Your task to perform on an android device: turn on javascript in the chrome app Image 0: 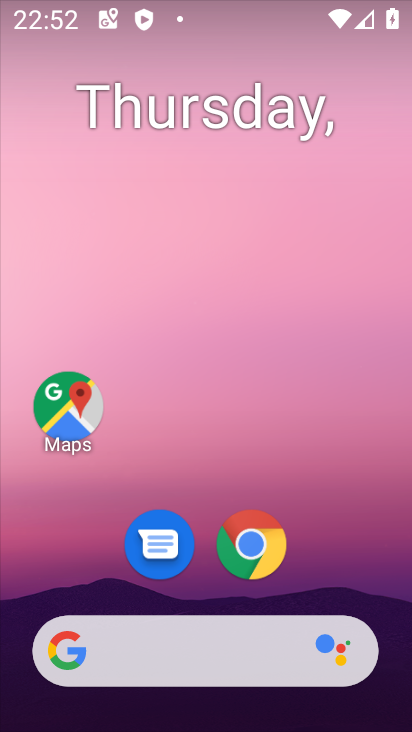
Step 0: drag from (317, 531) to (208, 6)
Your task to perform on an android device: turn on javascript in the chrome app Image 1: 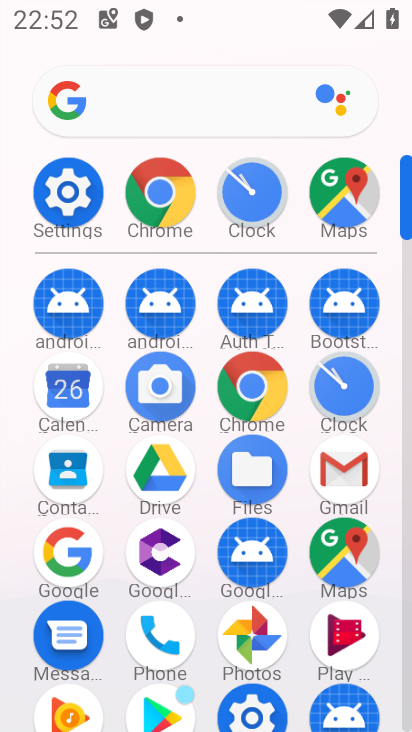
Step 1: drag from (21, 571) to (12, 273)
Your task to perform on an android device: turn on javascript in the chrome app Image 2: 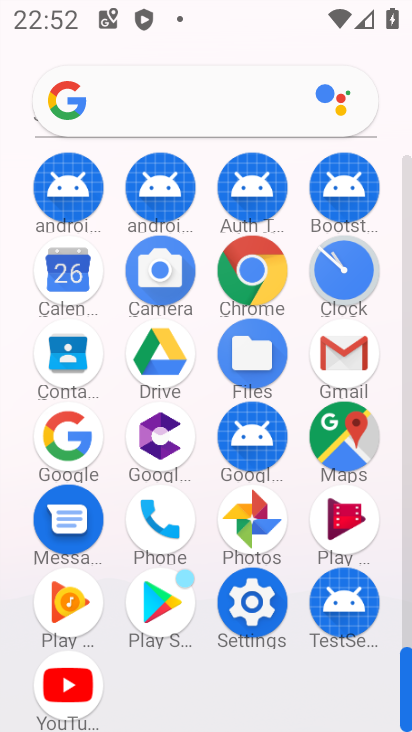
Step 2: click (250, 265)
Your task to perform on an android device: turn on javascript in the chrome app Image 3: 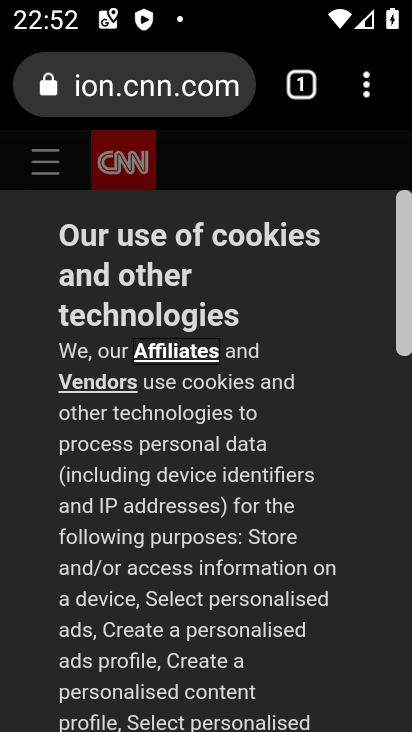
Step 3: drag from (358, 88) to (124, 582)
Your task to perform on an android device: turn on javascript in the chrome app Image 4: 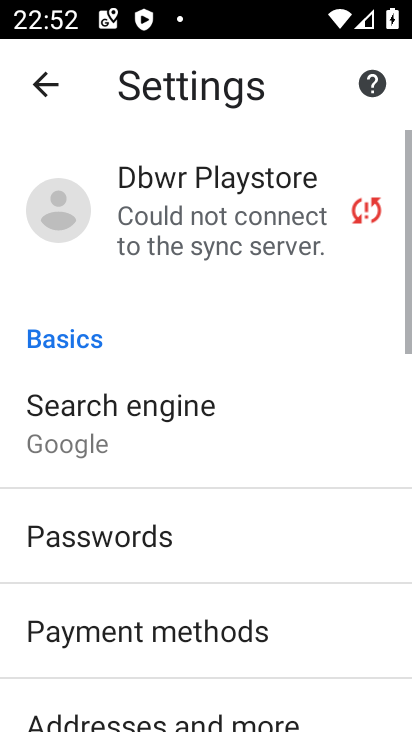
Step 4: drag from (271, 593) to (248, 224)
Your task to perform on an android device: turn on javascript in the chrome app Image 5: 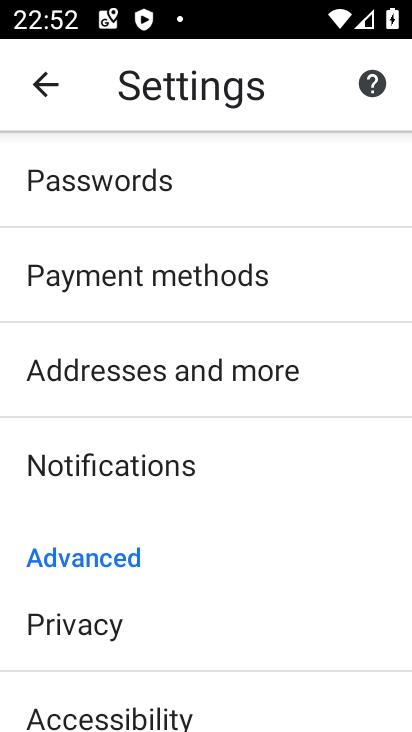
Step 5: drag from (238, 630) to (202, 206)
Your task to perform on an android device: turn on javascript in the chrome app Image 6: 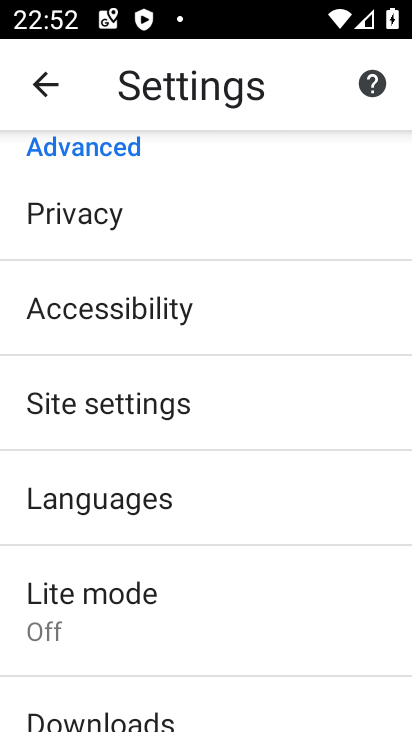
Step 6: click (181, 394)
Your task to perform on an android device: turn on javascript in the chrome app Image 7: 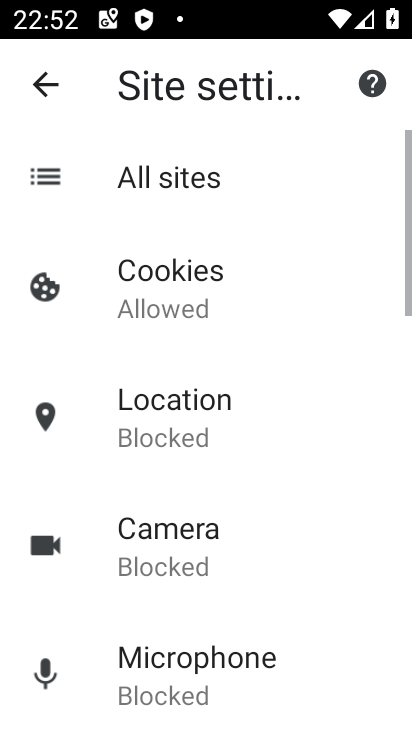
Step 7: task complete